Your task to perform on an android device: toggle notifications settings in the gmail app Image 0: 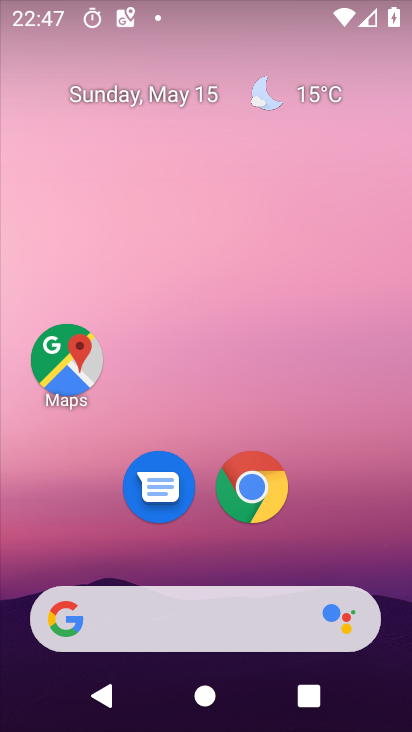
Step 0: drag from (381, 595) to (319, 67)
Your task to perform on an android device: toggle notifications settings in the gmail app Image 1: 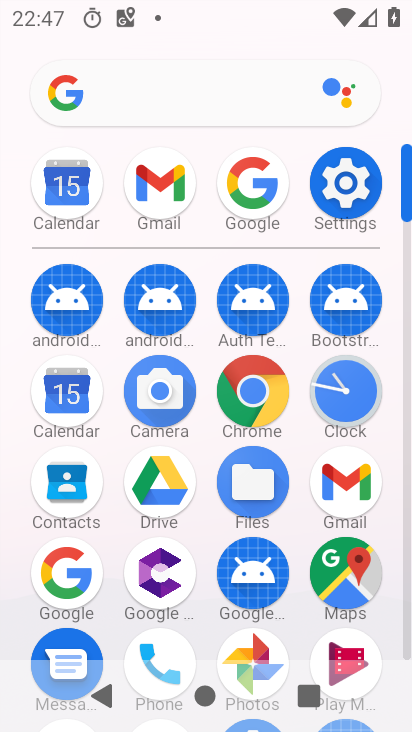
Step 1: click (169, 190)
Your task to perform on an android device: toggle notifications settings in the gmail app Image 2: 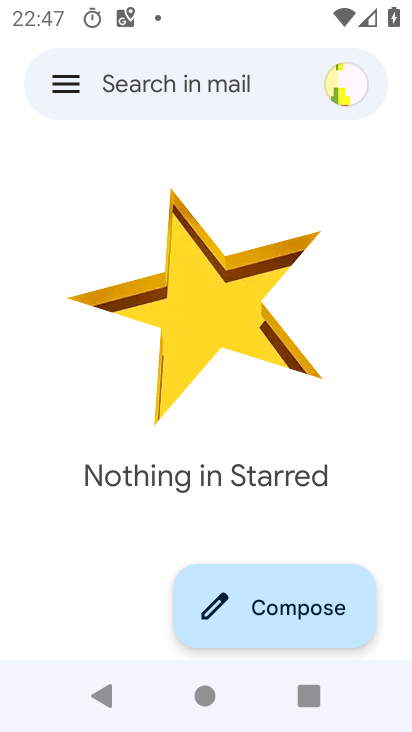
Step 2: click (61, 80)
Your task to perform on an android device: toggle notifications settings in the gmail app Image 3: 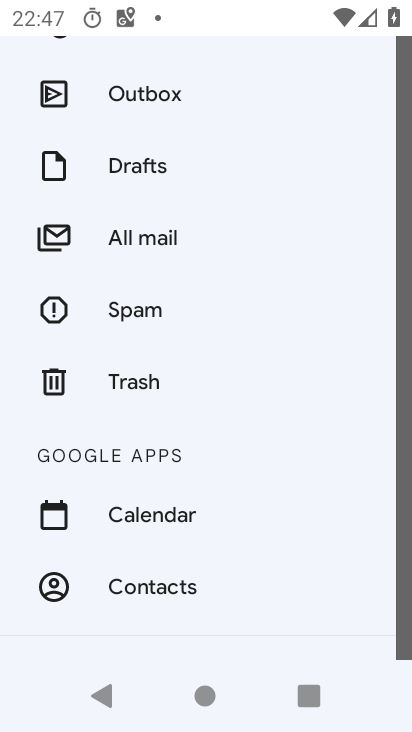
Step 3: drag from (130, 512) to (172, 121)
Your task to perform on an android device: toggle notifications settings in the gmail app Image 4: 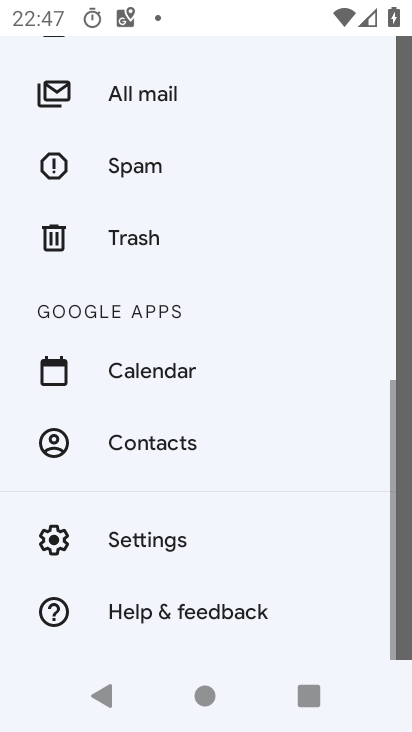
Step 4: click (134, 513)
Your task to perform on an android device: toggle notifications settings in the gmail app Image 5: 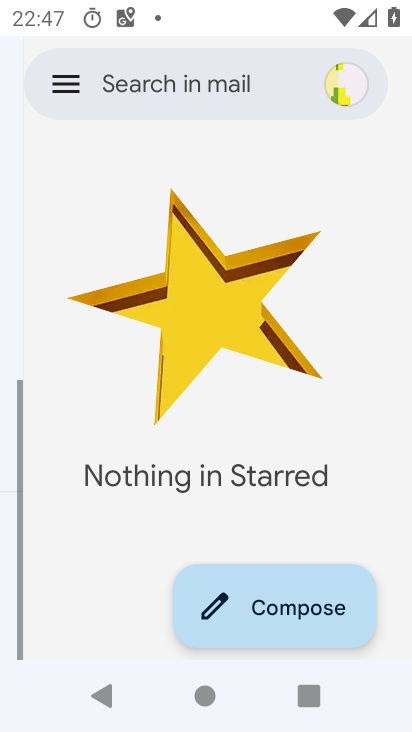
Step 5: click (135, 532)
Your task to perform on an android device: toggle notifications settings in the gmail app Image 6: 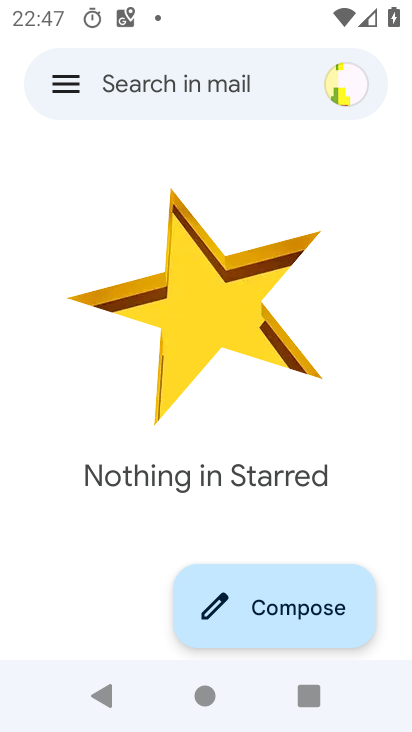
Step 6: click (135, 532)
Your task to perform on an android device: toggle notifications settings in the gmail app Image 7: 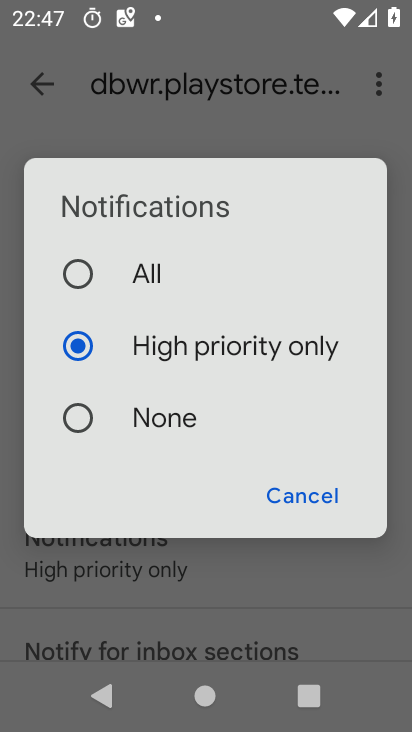
Step 7: click (340, 505)
Your task to perform on an android device: toggle notifications settings in the gmail app Image 8: 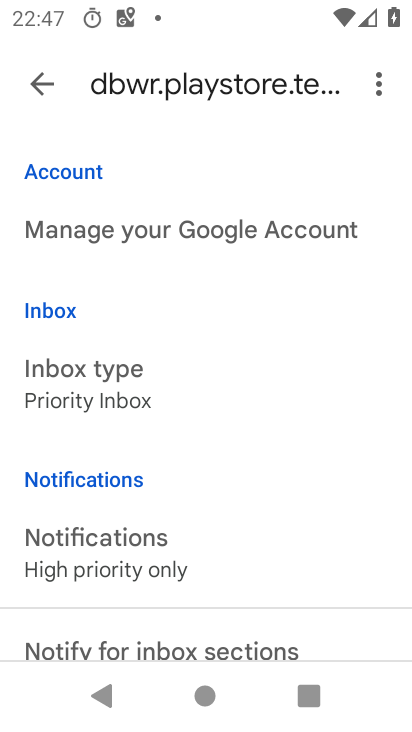
Step 8: click (75, 541)
Your task to perform on an android device: toggle notifications settings in the gmail app Image 9: 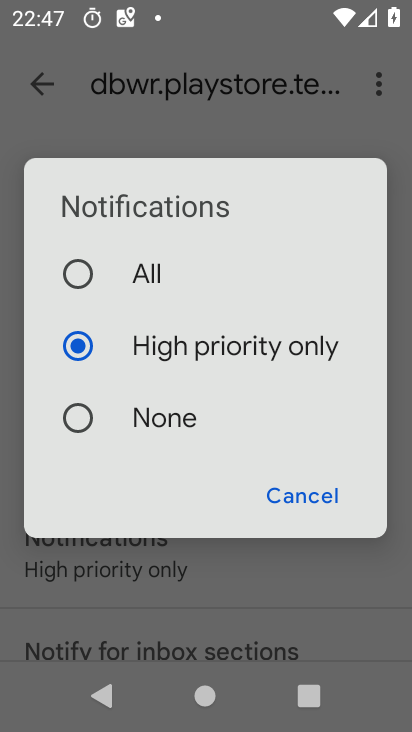
Step 9: click (79, 270)
Your task to perform on an android device: toggle notifications settings in the gmail app Image 10: 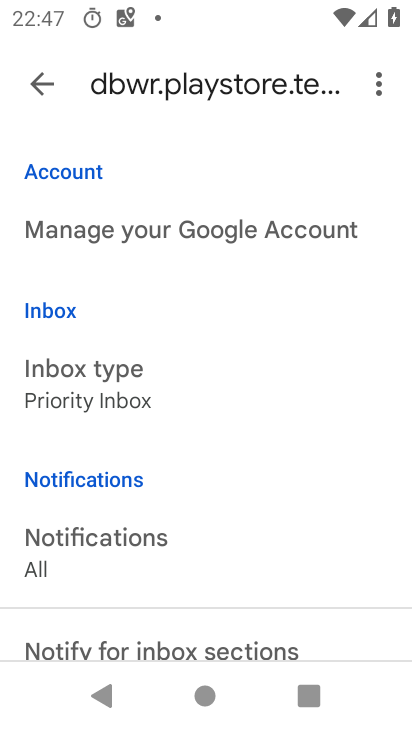
Step 10: task complete